Your task to perform on an android device: Set the phone to "Do not disturb". Image 0: 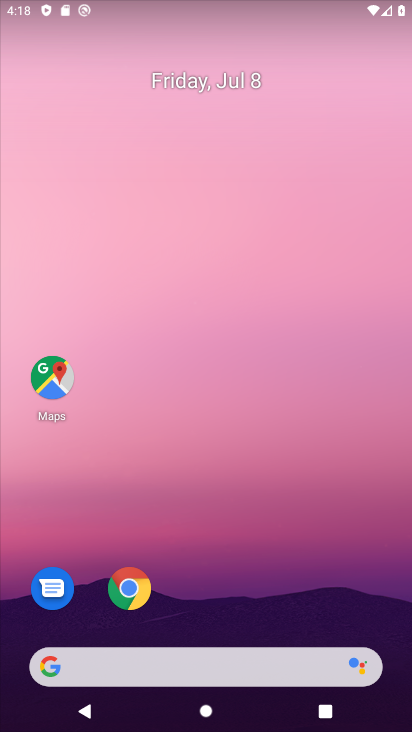
Step 0: drag from (273, 713) to (167, 260)
Your task to perform on an android device: Set the phone to "Do not disturb". Image 1: 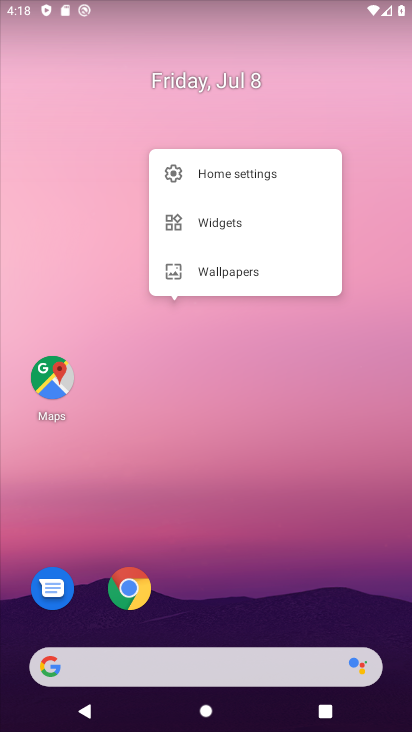
Step 1: drag from (252, 658) to (278, 232)
Your task to perform on an android device: Set the phone to "Do not disturb". Image 2: 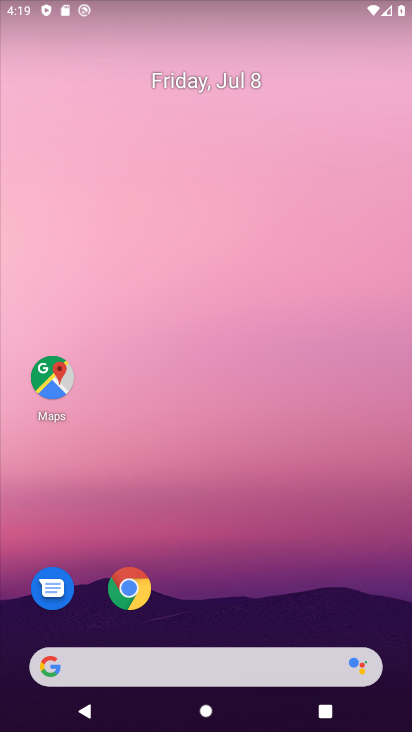
Step 2: drag from (266, 686) to (121, 184)
Your task to perform on an android device: Set the phone to "Do not disturb". Image 3: 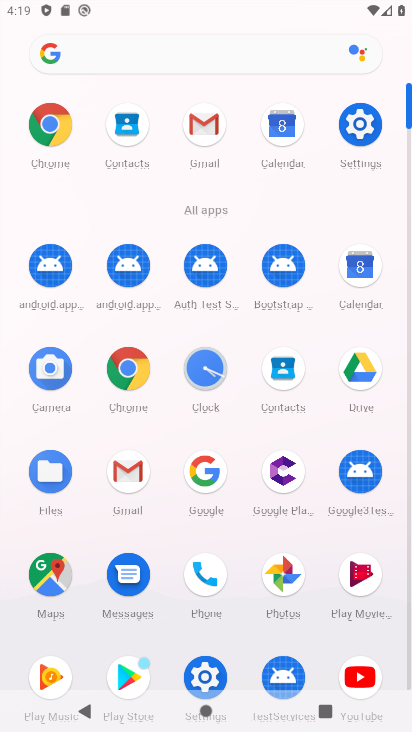
Step 3: click (377, 144)
Your task to perform on an android device: Set the phone to "Do not disturb". Image 4: 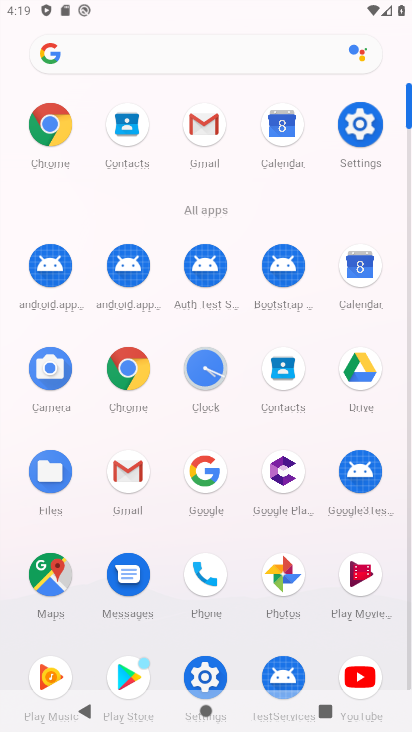
Step 4: click (366, 138)
Your task to perform on an android device: Set the phone to "Do not disturb". Image 5: 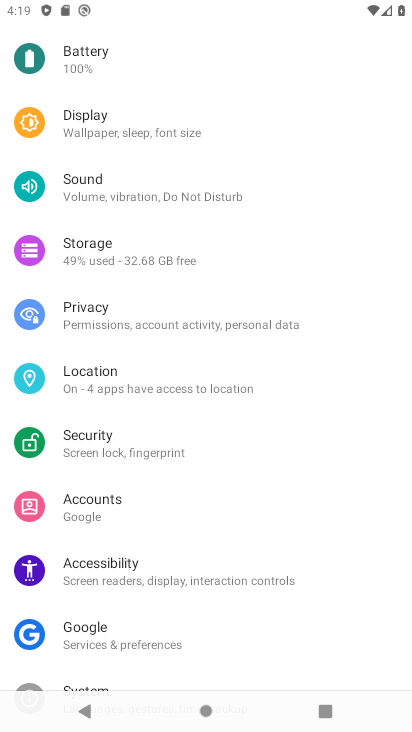
Step 5: drag from (110, 218) to (209, 671)
Your task to perform on an android device: Set the phone to "Do not disturb". Image 6: 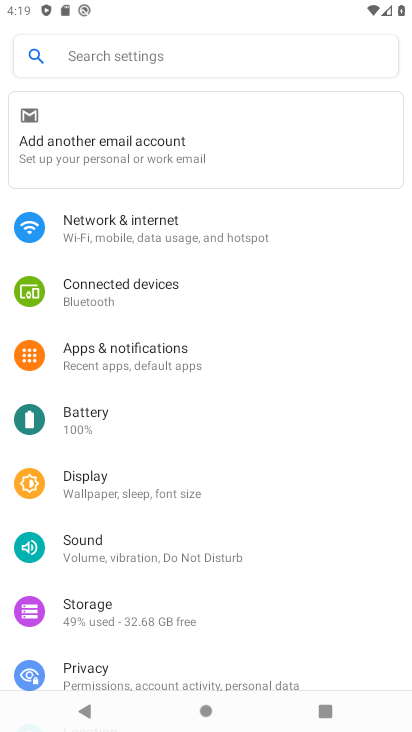
Step 6: click (109, 558)
Your task to perform on an android device: Set the phone to "Do not disturb". Image 7: 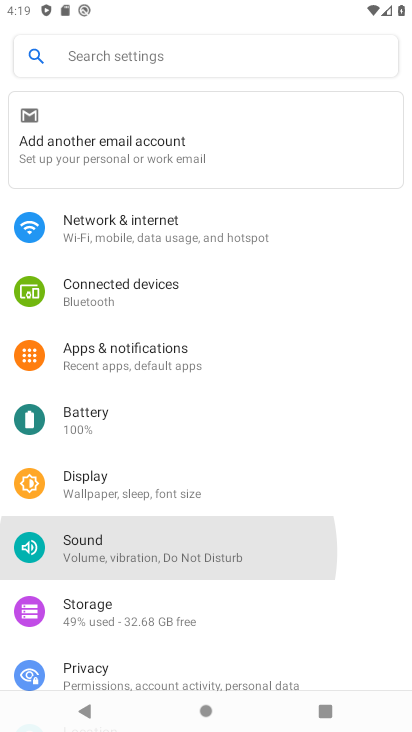
Step 7: click (109, 558)
Your task to perform on an android device: Set the phone to "Do not disturb". Image 8: 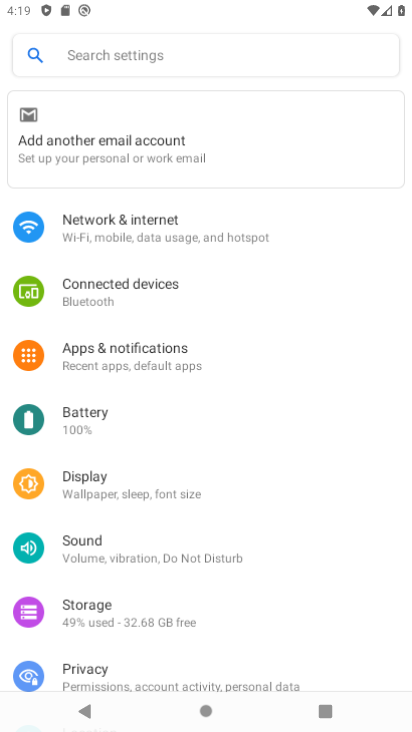
Step 8: click (109, 558)
Your task to perform on an android device: Set the phone to "Do not disturb". Image 9: 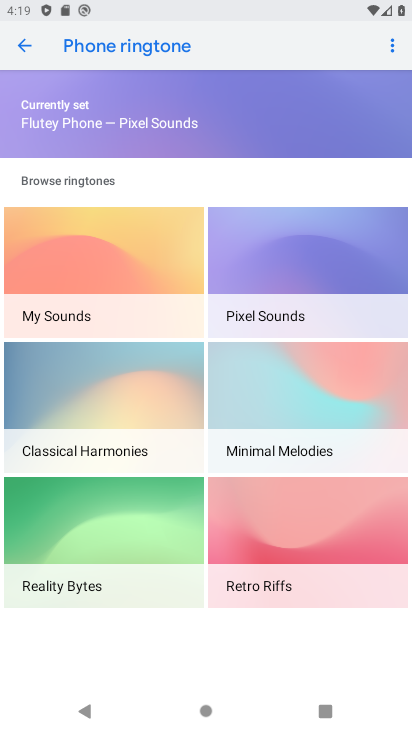
Step 9: click (20, 49)
Your task to perform on an android device: Set the phone to "Do not disturb". Image 10: 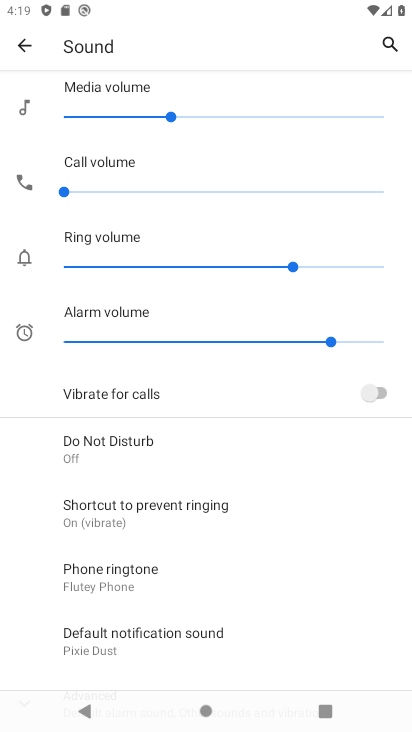
Step 10: click (100, 441)
Your task to perform on an android device: Set the phone to "Do not disturb". Image 11: 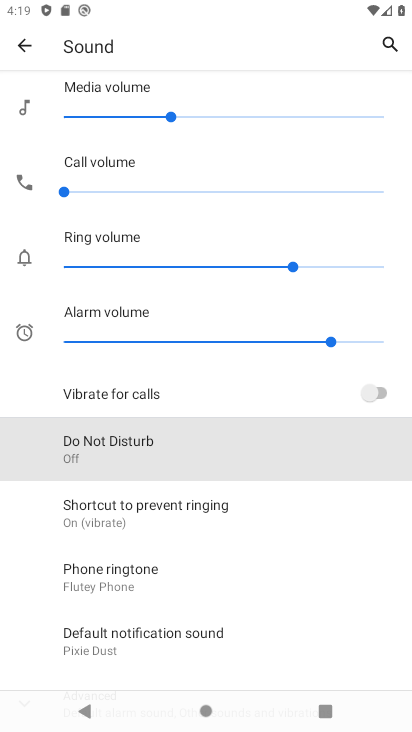
Step 11: click (100, 441)
Your task to perform on an android device: Set the phone to "Do not disturb". Image 12: 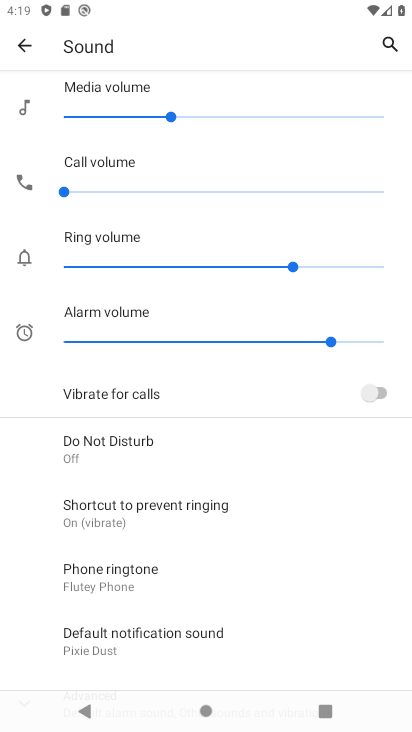
Step 12: click (100, 441)
Your task to perform on an android device: Set the phone to "Do not disturb". Image 13: 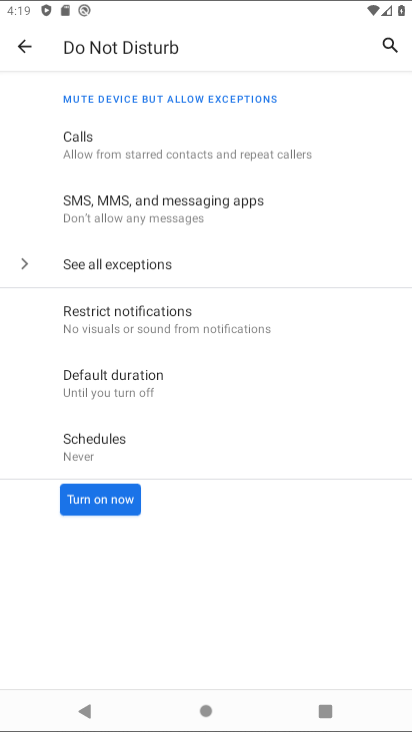
Step 13: click (100, 441)
Your task to perform on an android device: Set the phone to "Do not disturb". Image 14: 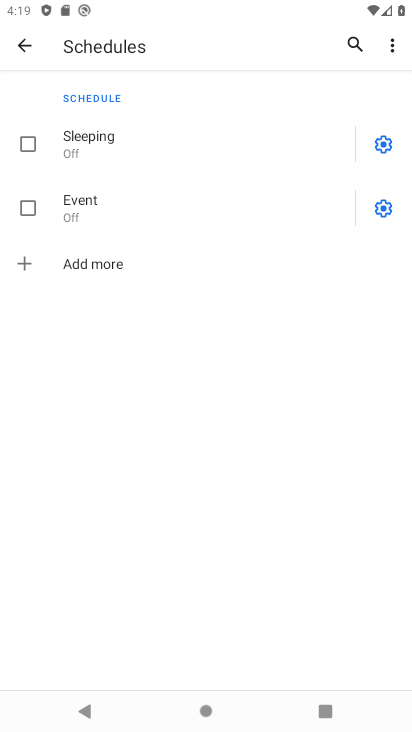
Step 14: click (30, 54)
Your task to perform on an android device: Set the phone to "Do not disturb". Image 15: 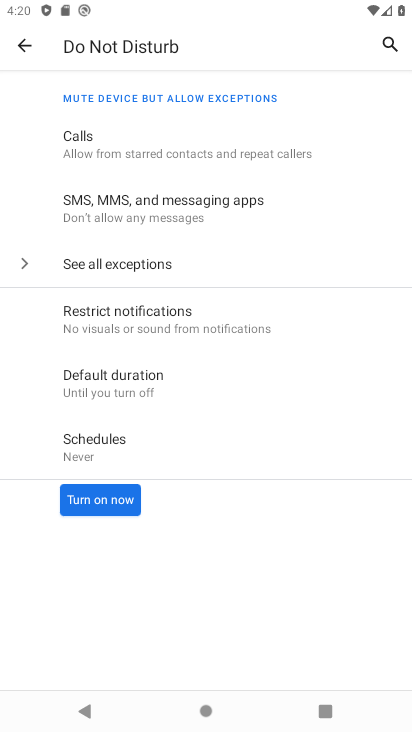
Step 15: task complete